Your task to perform on an android device: Open the web browser Image 0: 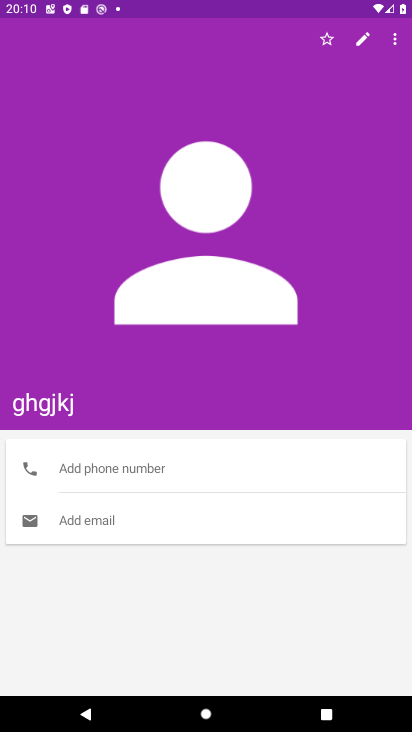
Step 0: press home button
Your task to perform on an android device: Open the web browser Image 1: 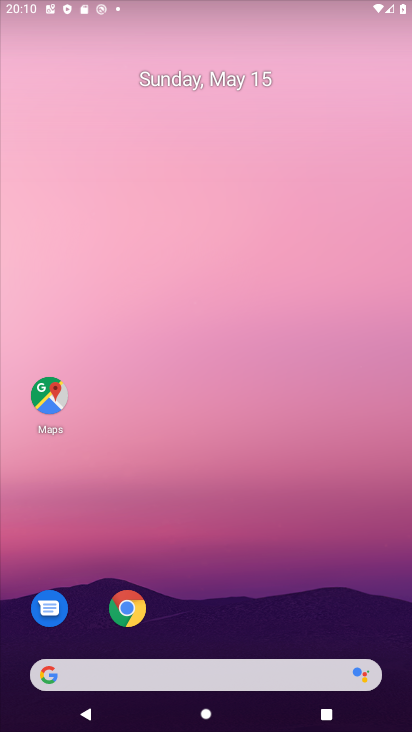
Step 1: drag from (211, 578) to (245, 141)
Your task to perform on an android device: Open the web browser Image 2: 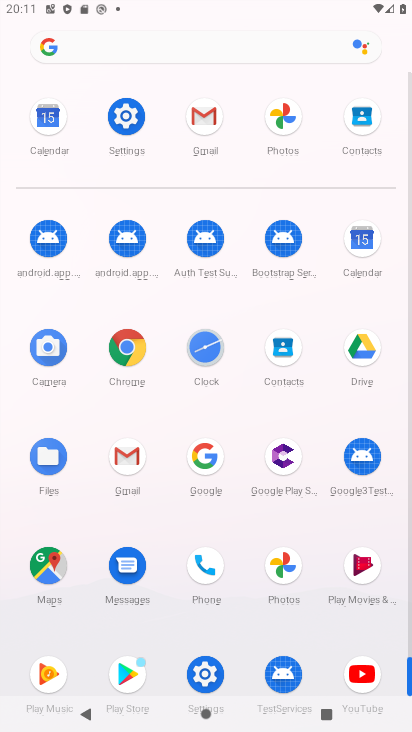
Step 2: click (202, 461)
Your task to perform on an android device: Open the web browser Image 3: 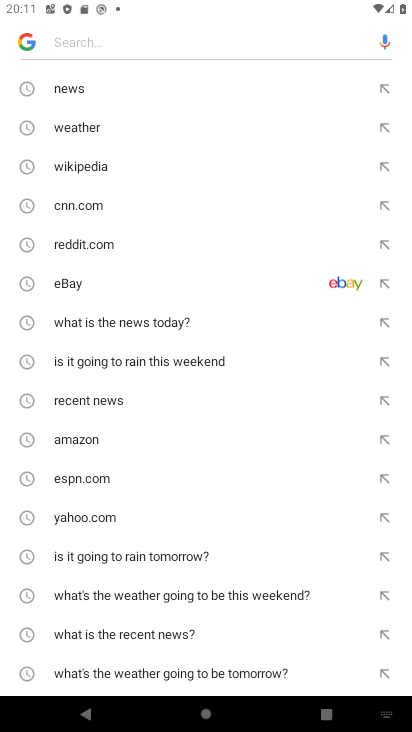
Step 3: task complete